Your task to perform on an android device: turn off sleep mode Image 0: 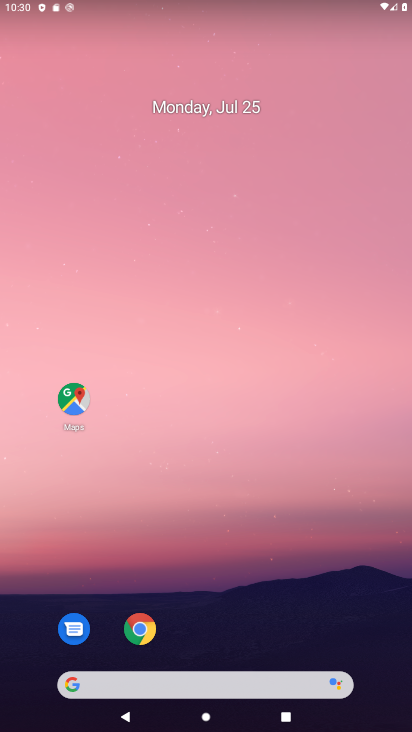
Step 0: drag from (332, 636) to (326, 2)
Your task to perform on an android device: turn off sleep mode Image 1: 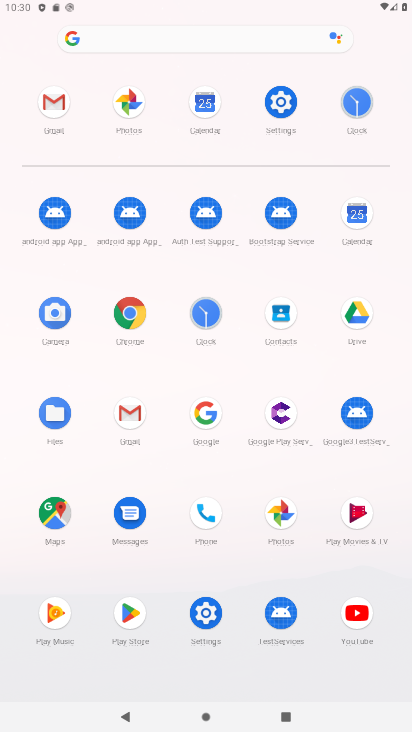
Step 1: click (282, 107)
Your task to perform on an android device: turn off sleep mode Image 2: 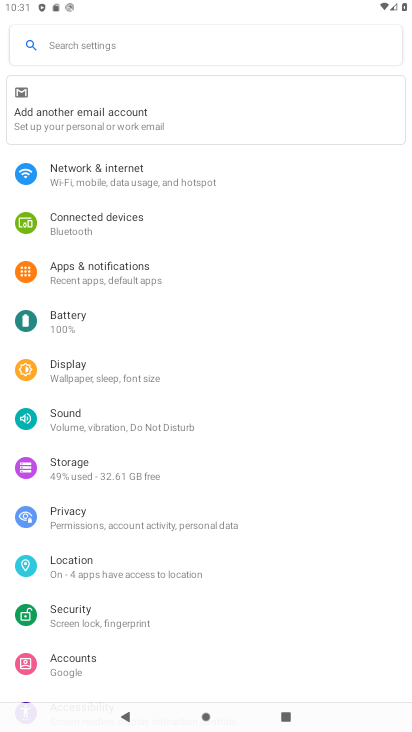
Step 2: click (72, 388)
Your task to perform on an android device: turn off sleep mode Image 3: 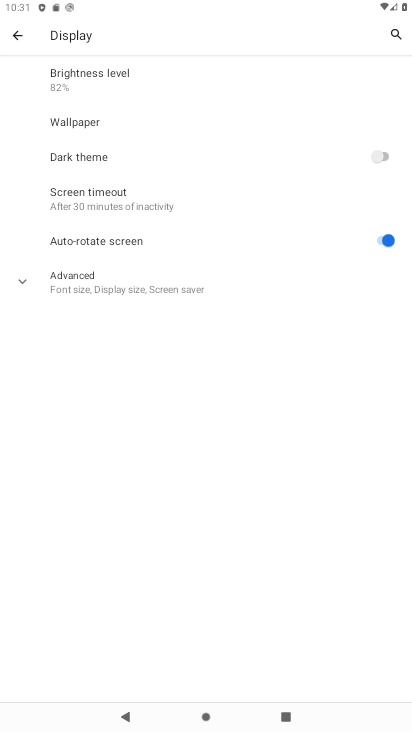
Step 3: click (21, 285)
Your task to perform on an android device: turn off sleep mode Image 4: 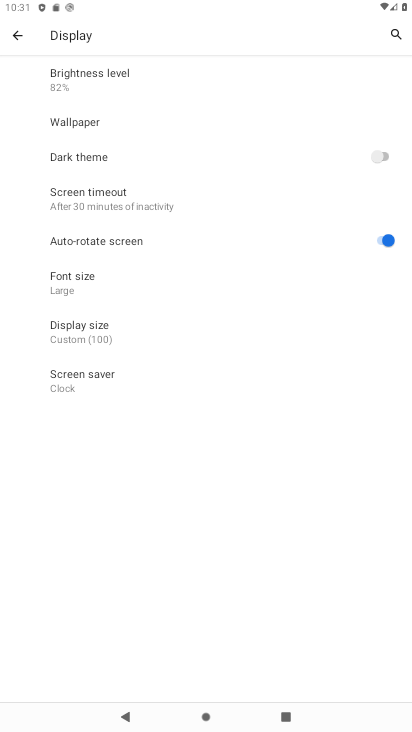
Step 4: task complete